Your task to perform on an android device: Open Wikipedia Image 0: 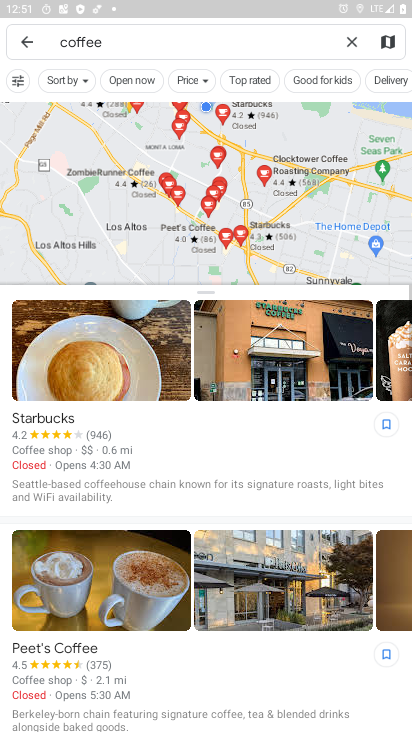
Step 0: click (17, 38)
Your task to perform on an android device: Open Wikipedia Image 1: 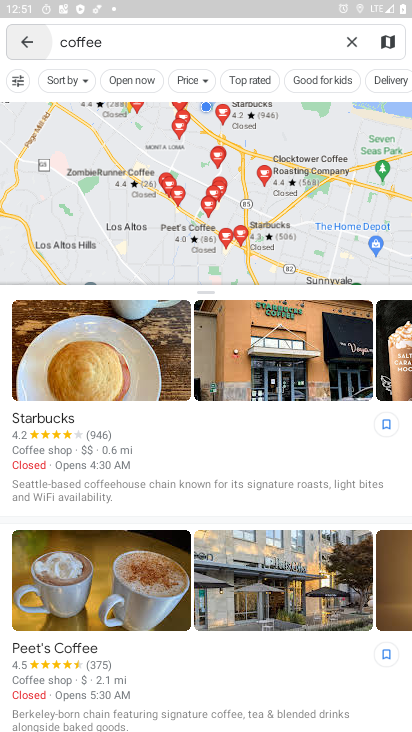
Step 1: click (19, 38)
Your task to perform on an android device: Open Wikipedia Image 2: 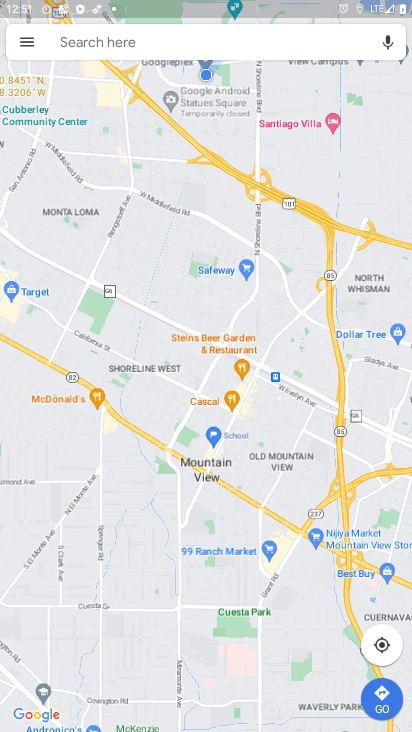
Step 2: press home button
Your task to perform on an android device: Open Wikipedia Image 3: 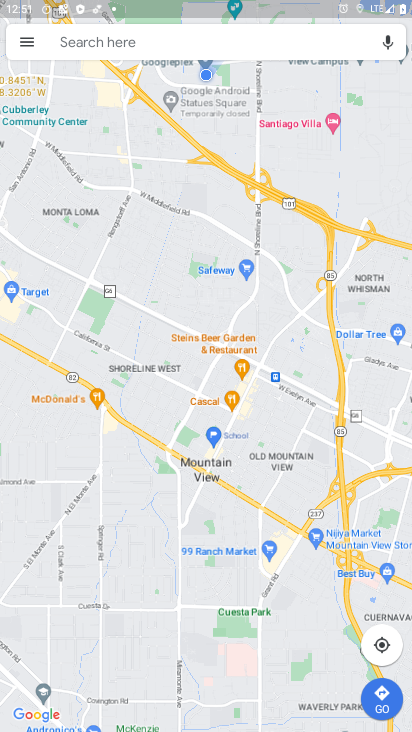
Step 3: press home button
Your task to perform on an android device: Open Wikipedia Image 4: 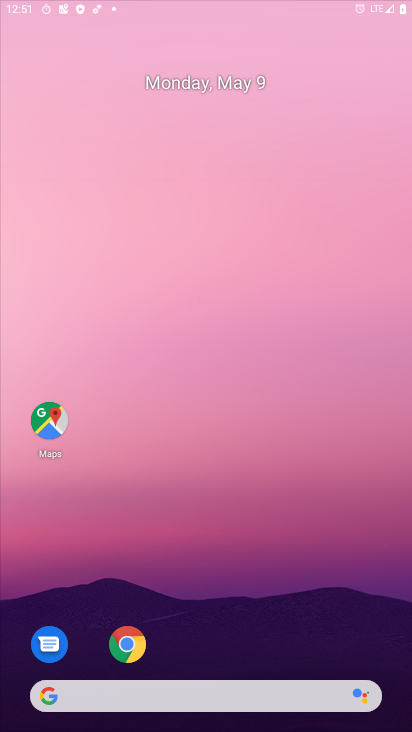
Step 4: press home button
Your task to perform on an android device: Open Wikipedia Image 5: 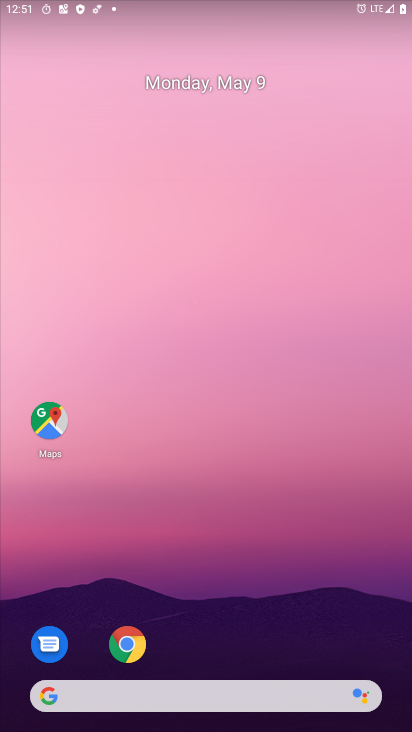
Step 5: drag from (329, 656) to (134, 93)
Your task to perform on an android device: Open Wikipedia Image 6: 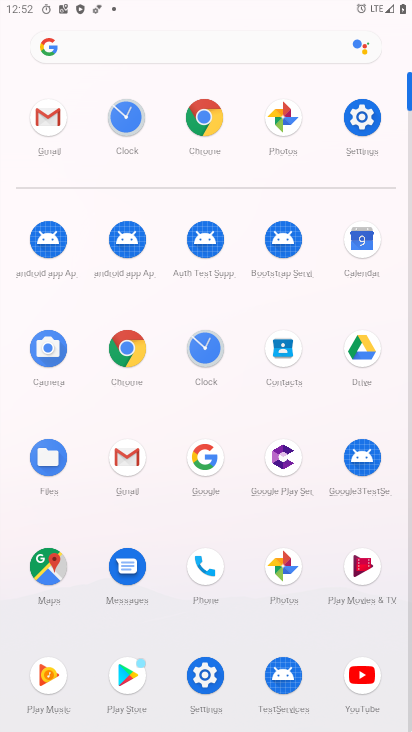
Step 6: click (205, 107)
Your task to perform on an android device: Open Wikipedia Image 7: 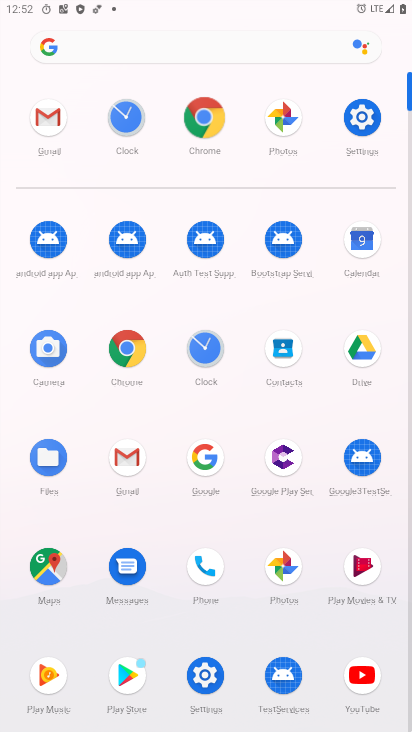
Step 7: click (206, 107)
Your task to perform on an android device: Open Wikipedia Image 8: 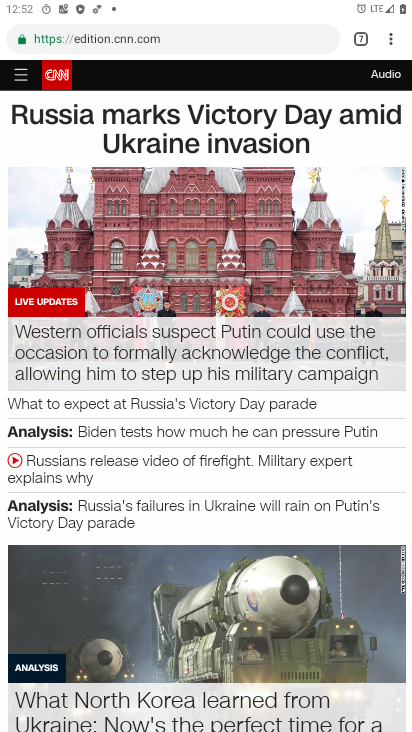
Step 8: drag from (389, 44) to (243, 72)
Your task to perform on an android device: Open Wikipedia Image 9: 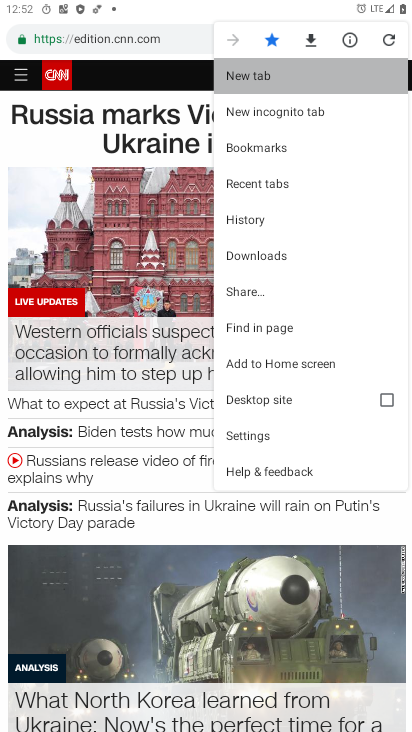
Step 9: click (243, 71)
Your task to perform on an android device: Open Wikipedia Image 10: 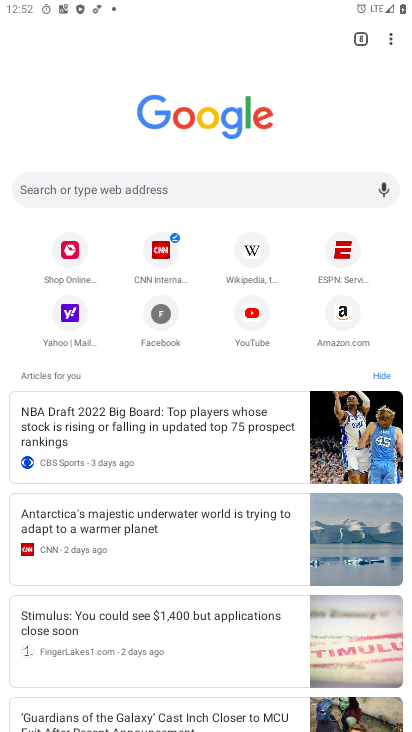
Step 10: drag from (245, 253) to (249, 291)
Your task to perform on an android device: Open Wikipedia Image 11: 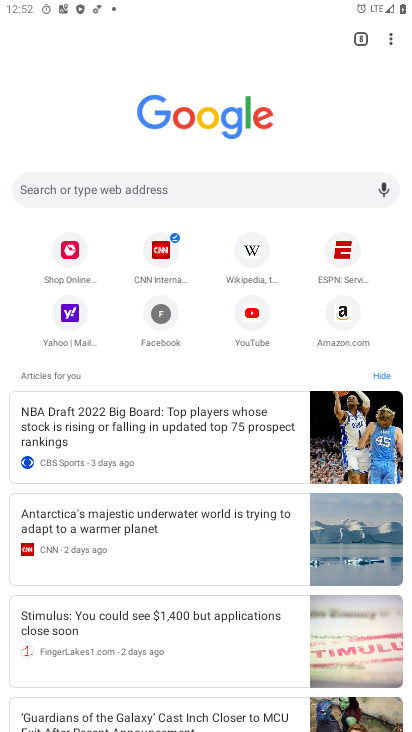
Step 11: click (252, 253)
Your task to perform on an android device: Open Wikipedia Image 12: 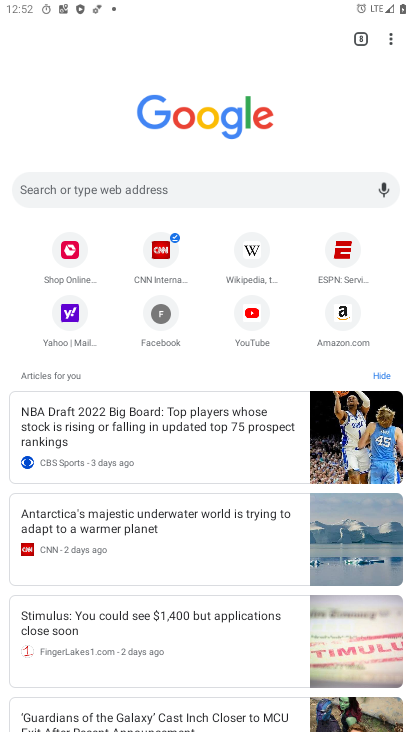
Step 12: click (252, 253)
Your task to perform on an android device: Open Wikipedia Image 13: 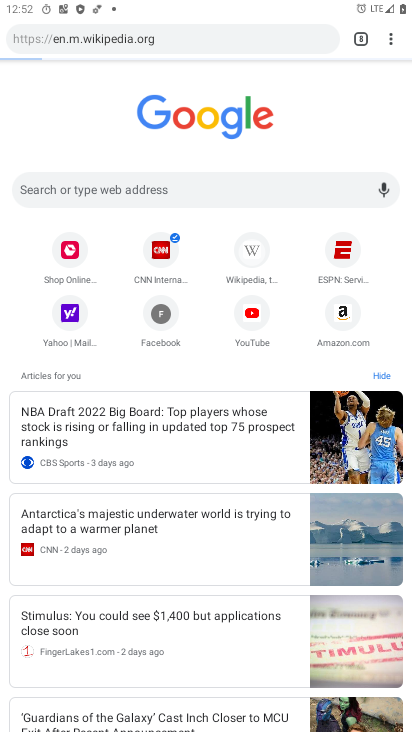
Step 13: click (252, 253)
Your task to perform on an android device: Open Wikipedia Image 14: 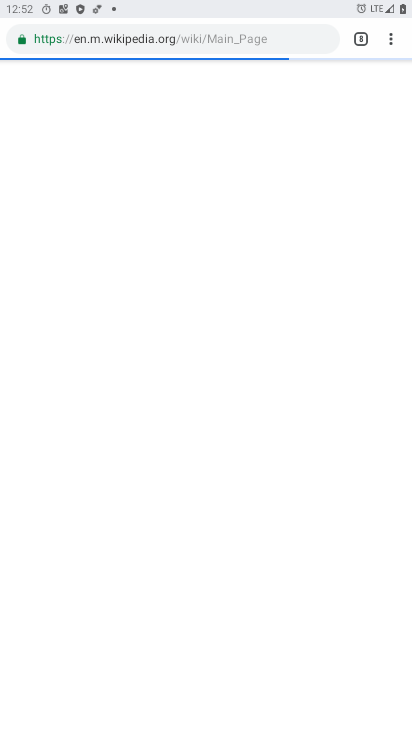
Step 14: click (252, 253)
Your task to perform on an android device: Open Wikipedia Image 15: 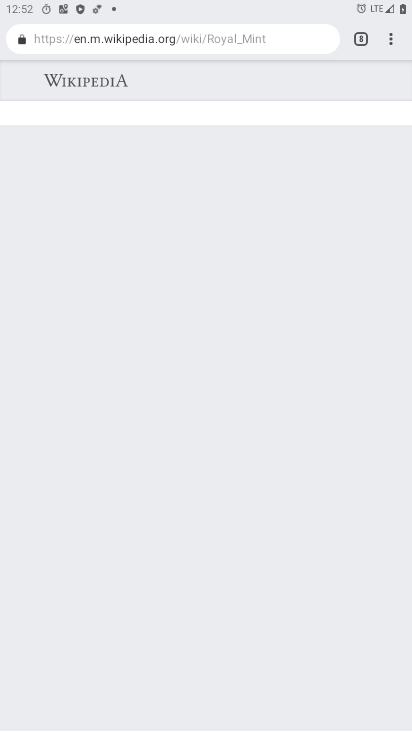
Step 15: task complete